Your task to perform on an android device: Open the phone app and click the voicemail tab. Image 0: 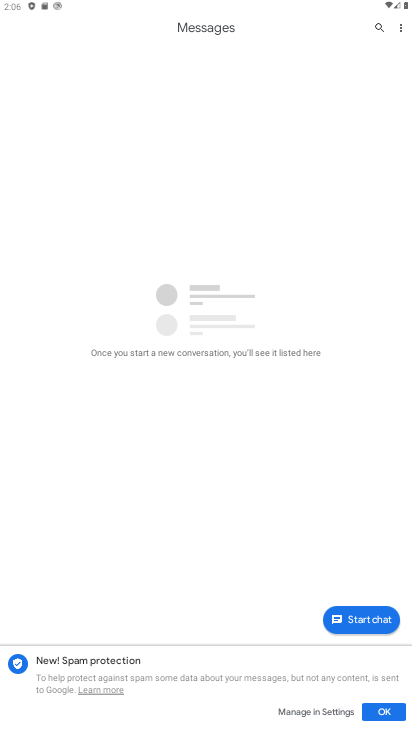
Step 0: press back button
Your task to perform on an android device: Open the phone app and click the voicemail tab. Image 1: 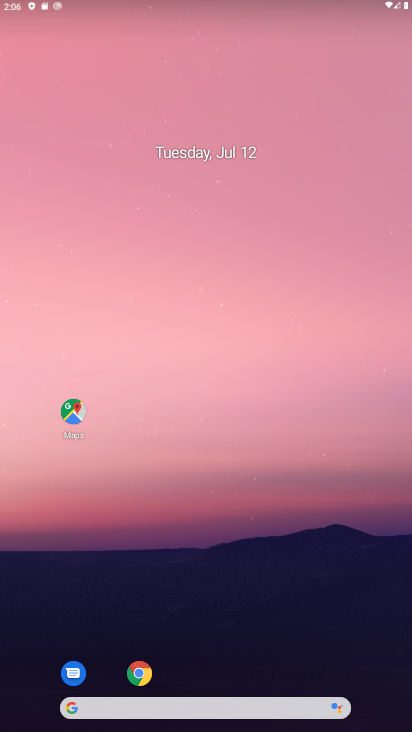
Step 1: drag from (219, 569) to (176, 305)
Your task to perform on an android device: Open the phone app and click the voicemail tab. Image 2: 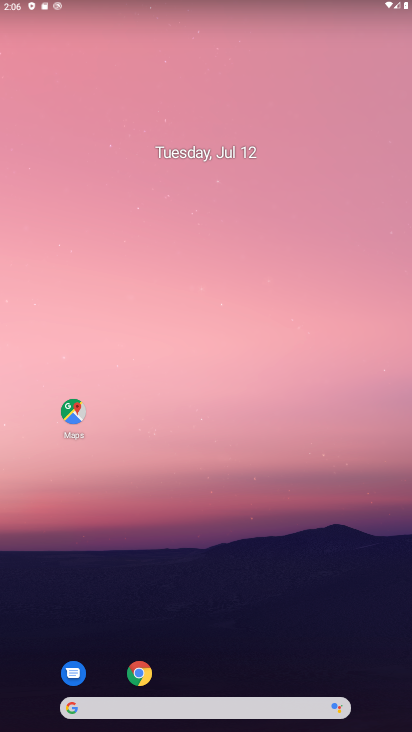
Step 2: drag from (241, 657) to (160, 178)
Your task to perform on an android device: Open the phone app and click the voicemail tab. Image 3: 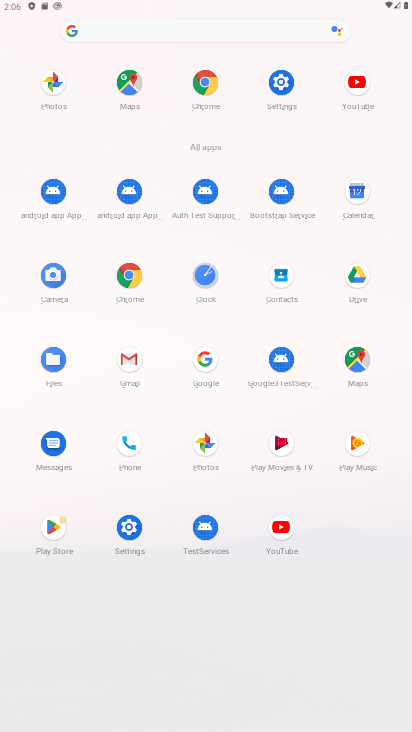
Step 3: click (127, 447)
Your task to perform on an android device: Open the phone app and click the voicemail tab. Image 4: 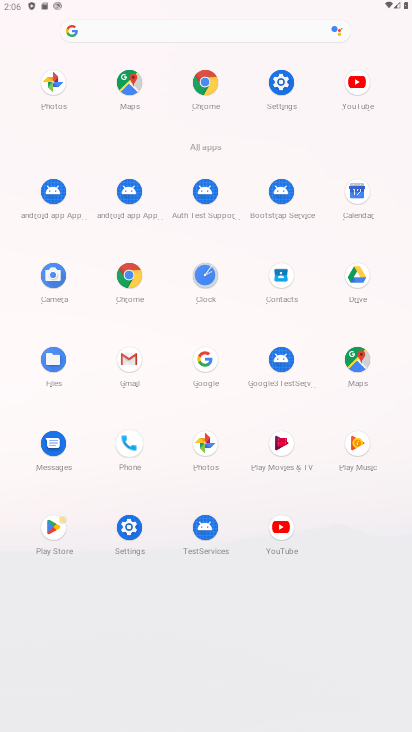
Step 4: click (127, 446)
Your task to perform on an android device: Open the phone app and click the voicemail tab. Image 5: 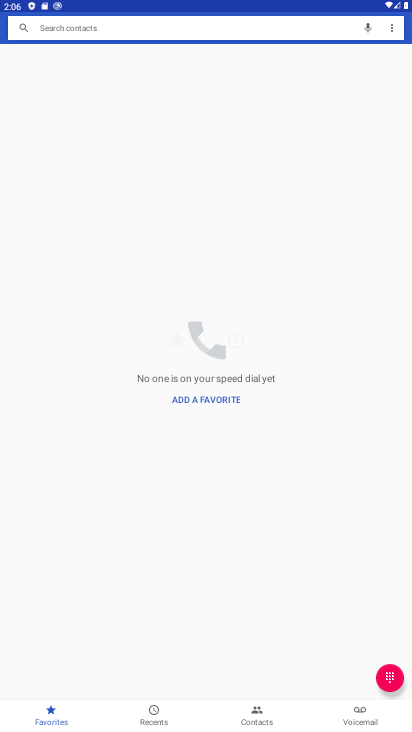
Step 5: click (356, 711)
Your task to perform on an android device: Open the phone app and click the voicemail tab. Image 6: 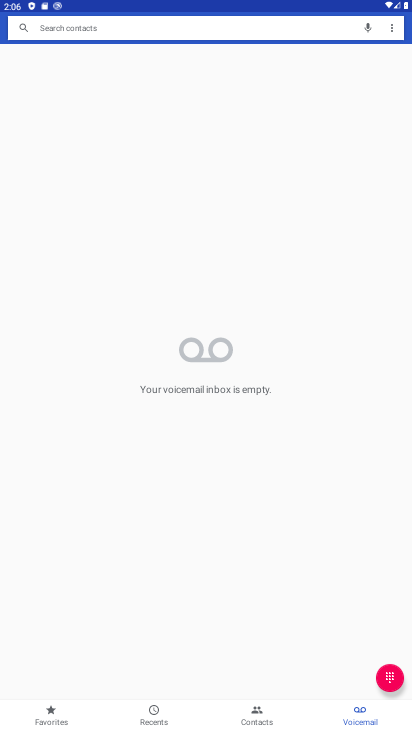
Step 6: task complete